Your task to perform on an android device: manage bookmarks in the chrome app Image 0: 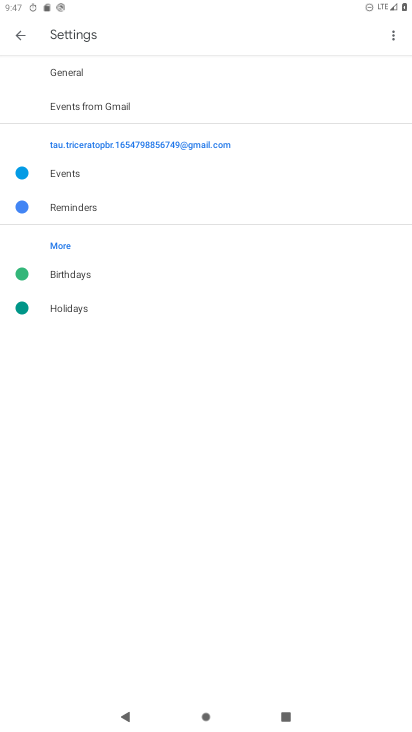
Step 0: press home button
Your task to perform on an android device: manage bookmarks in the chrome app Image 1: 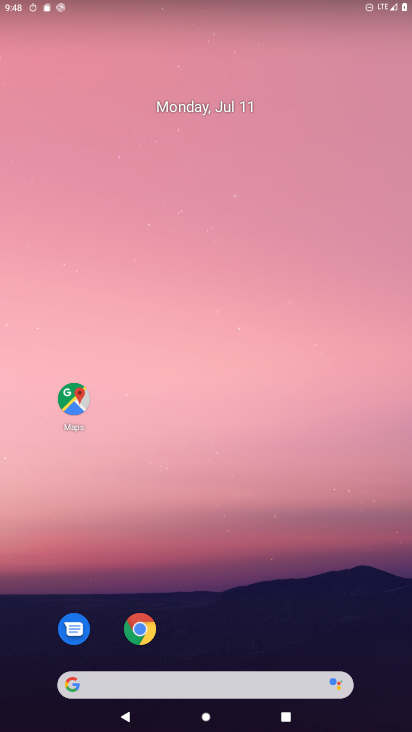
Step 1: click (142, 627)
Your task to perform on an android device: manage bookmarks in the chrome app Image 2: 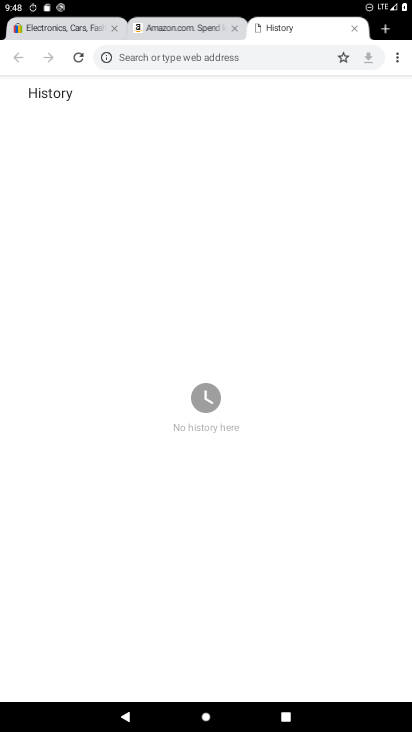
Step 2: click (388, 59)
Your task to perform on an android device: manage bookmarks in the chrome app Image 3: 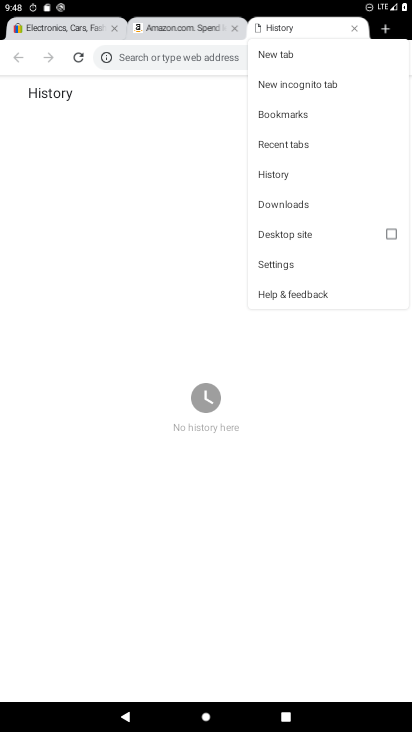
Step 3: click (284, 120)
Your task to perform on an android device: manage bookmarks in the chrome app Image 4: 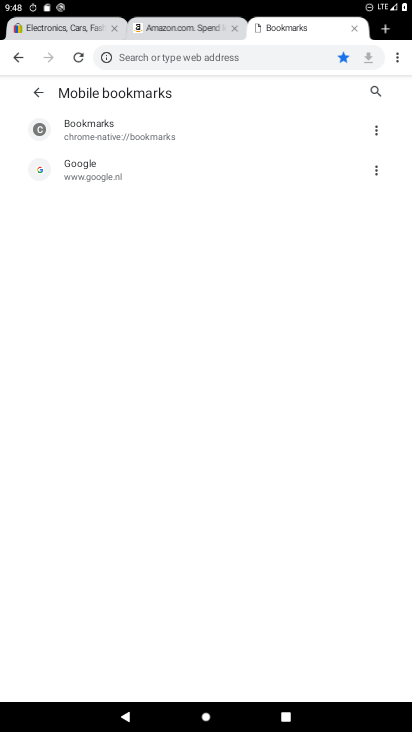
Step 4: click (242, 133)
Your task to perform on an android device: manage bookmarks in the chrome app Image 5: 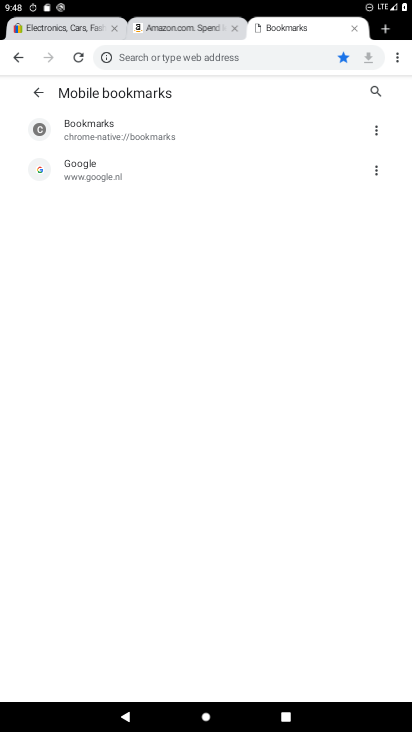
Step 5: click (386, 170)
Your task to perform on an android device: manage bookmarks in the chrome app Image 6: 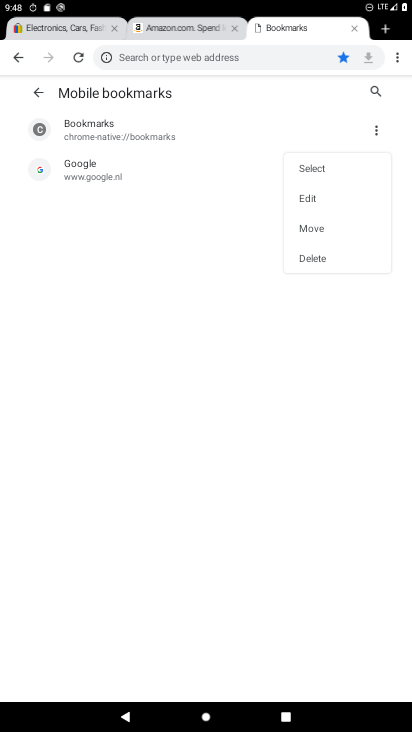
Step 6: click (348, 251)
Your task to perform on an android device: manage bookmarks in the chrome app Image 7: 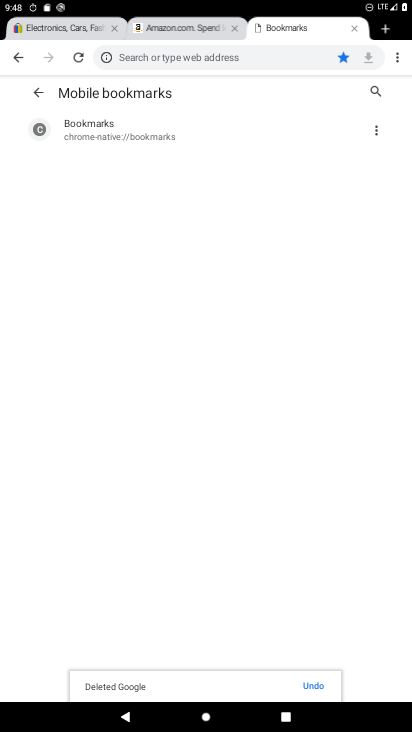
Step 7: task complete